Your task to perform on an android device: Check the weather Image 0: 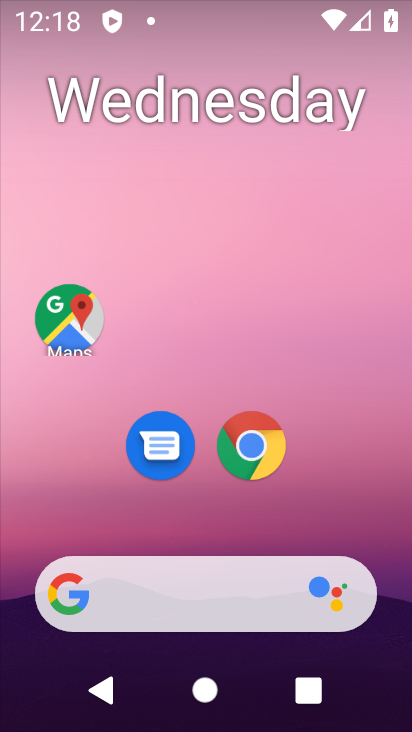
Step 0: click (251, 445)
Your task to perform on an android device: Check the weather Image 1: 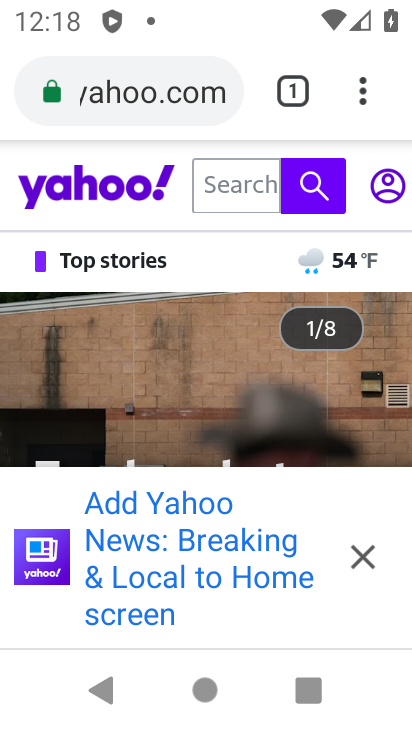
Step 1: press home button
Your task to perform on an android device: Check the weather Image 2: 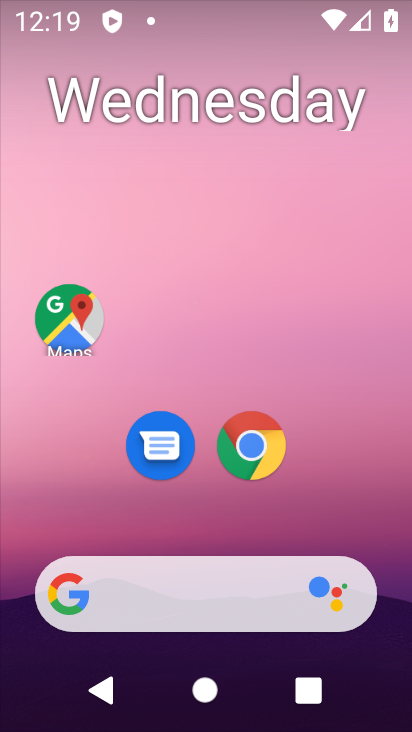
Step 2: click (252, 446)
Your task to perform on an android device: Check the weather Image 3: 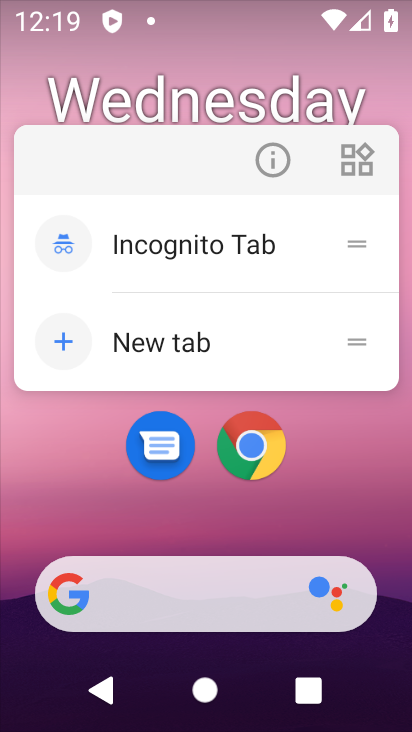
Step 3: click (262, 170)
Your task to perform on an android device: Check the weather Image 4: 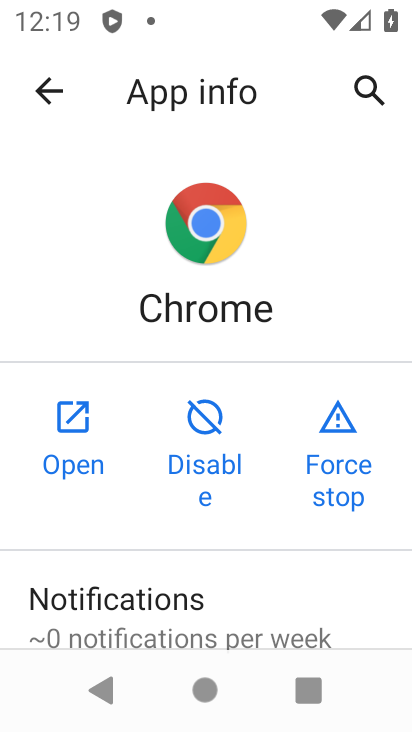
Step 4: click (86, 455)
Your task to perform on an android device: Check the weather Image 5: 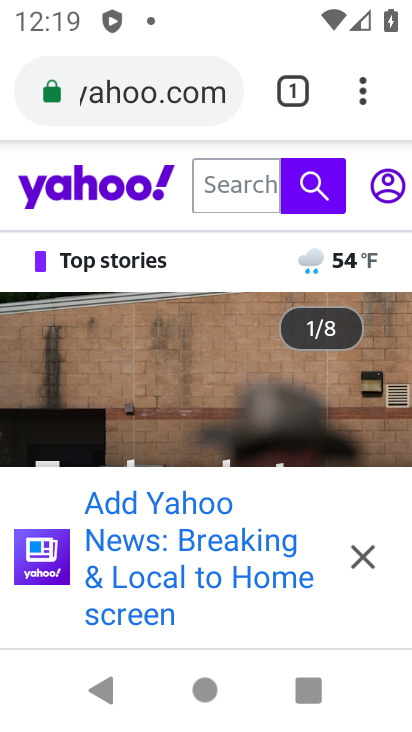
Step 5: click (180, 94)
Your task to perform on an android device: Check the weather Image 6: 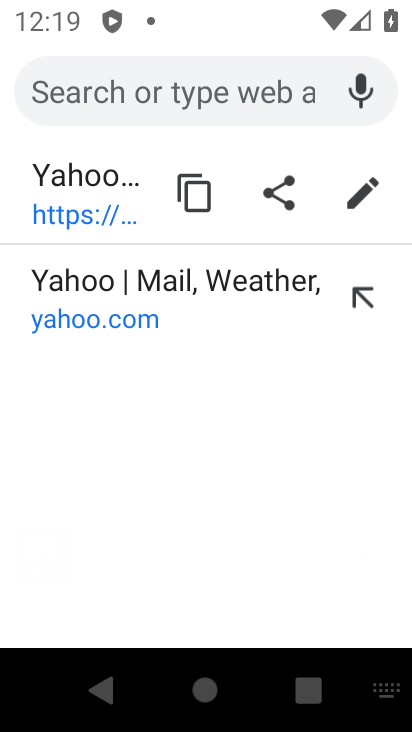
Step 6: type "weather"
Your task to perform on an android device: Check the weather Image 7: 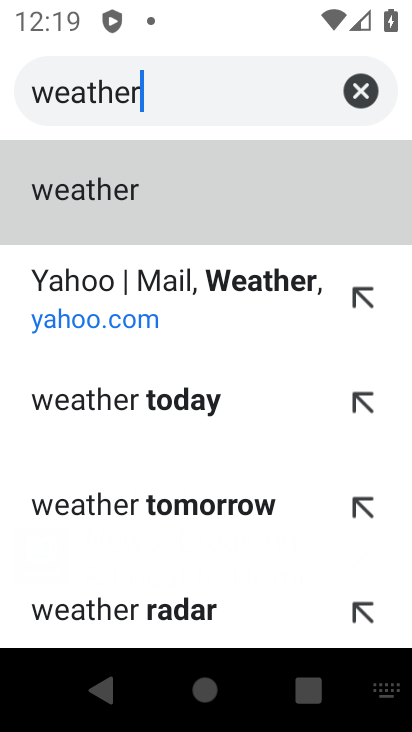
Step 7: click (116, 175)
Your task to perform on an android device: Check the weather Image 8: 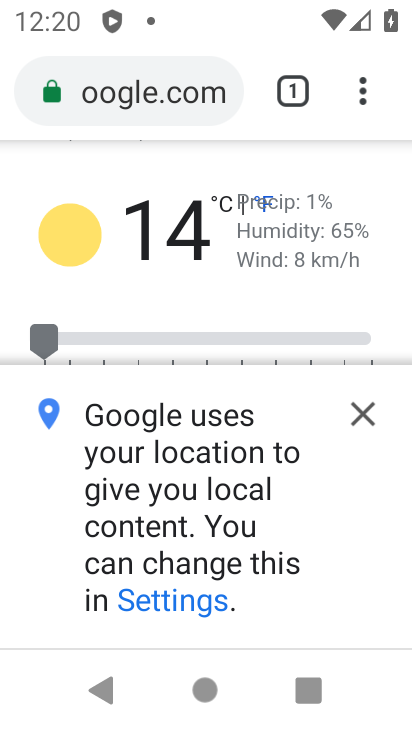
Step 8: task complete